Your task to perform on an android device: turn on bluetooth scan Image 0: 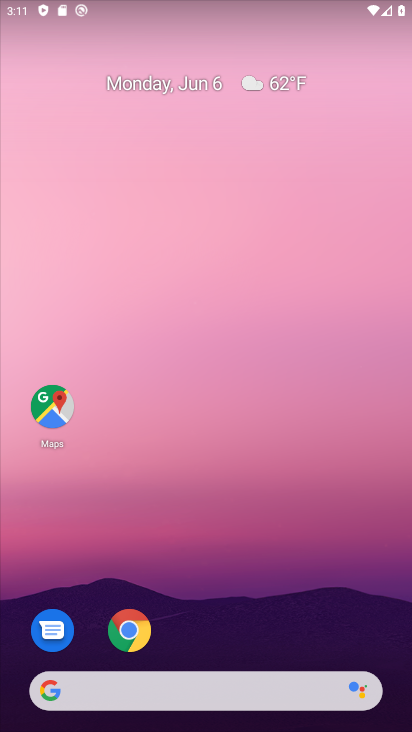
Step 0: press home button
Your task to perform on an android device: turn on bluetooth scan Image 1: 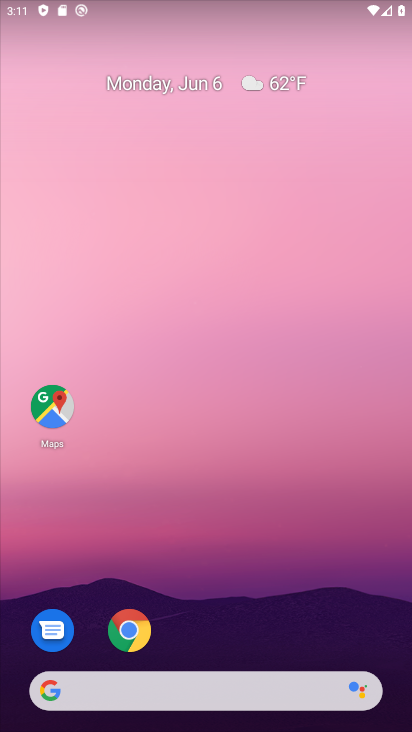
Step 1: drag from (331, 613) to (278, 0)
Your task to perform on an android device: turn on bluetooth scan Image 2: 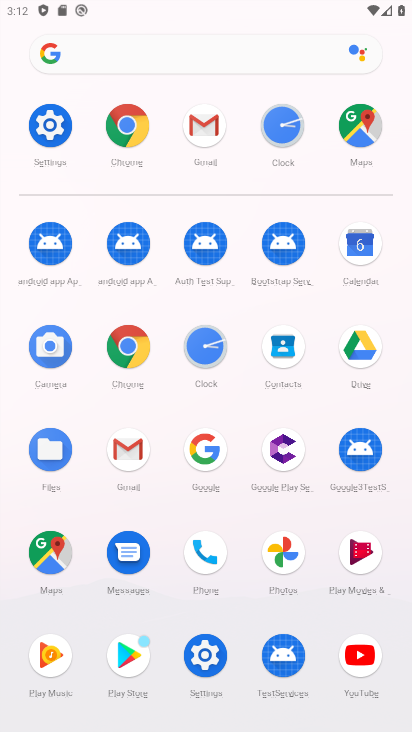
Step 2: click (195, 671)
Your task to perform on an android device: turn on bluetooth scan Image 3: 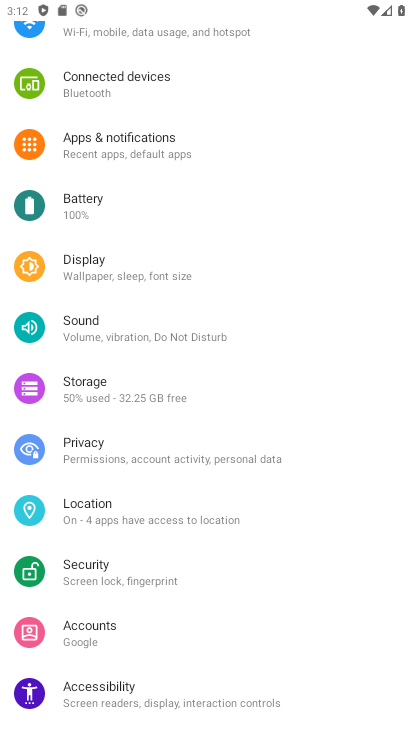
Step 3: click (86, 517)
Your task to perform on an android device: turn on bluetooth scan Image 4: 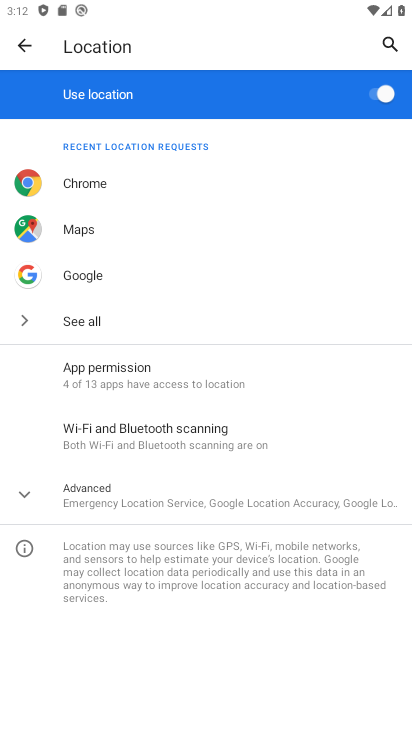
Step 4: click (120, 449)
Your task to perform on an android device: turn on bluetooth scan Image 5: 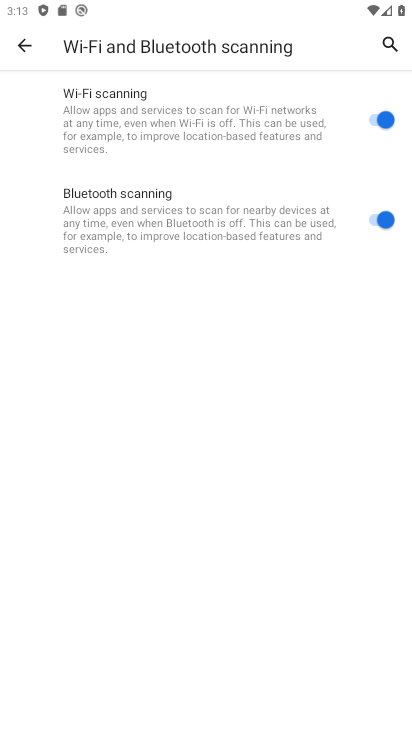
Step 5: task complete